Your task to perform on an android device: Open privacy settings Image 0: 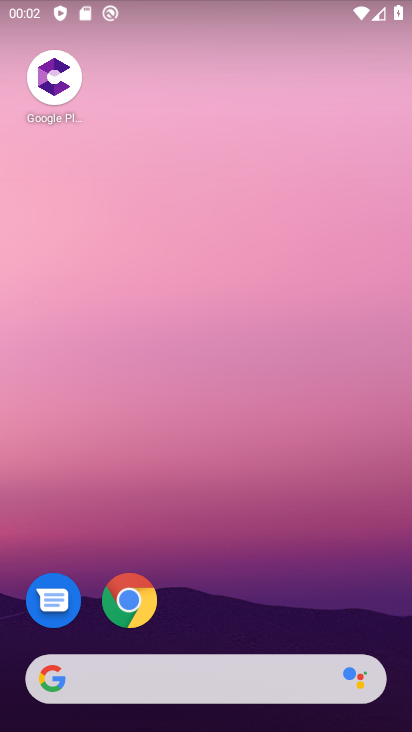
Step 0: drag from (240, 611) to (195, 179)
Your task to perform on an android device: Open privacy settings Image 1: 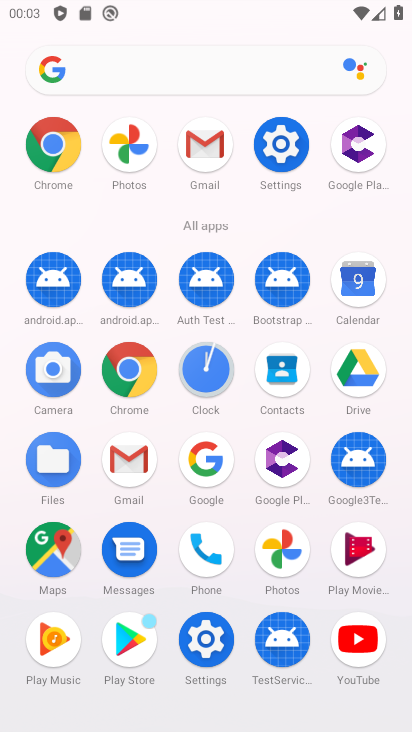
Step 1: click (269, 141)
Your task to perform on an android device: Open privacy settings Image 2: 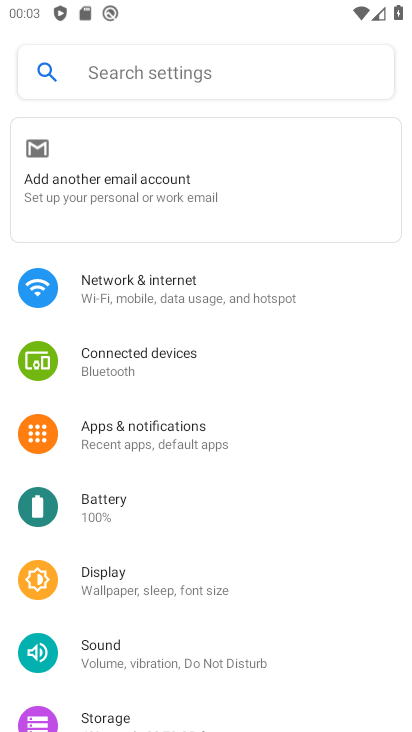
Step 2: drag from (275, 705) to (239, 134)
Your task to perform on an android device: Open privacy settings Image 3: 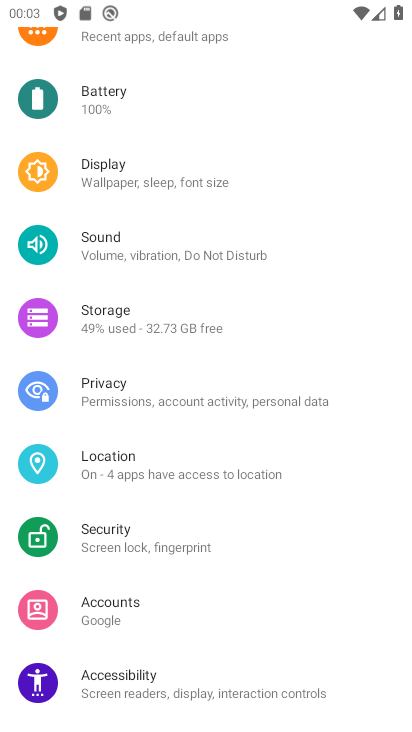
Step 3: click (255, 386)
Your task to perform on an android device: Open privacy settings Image 4: 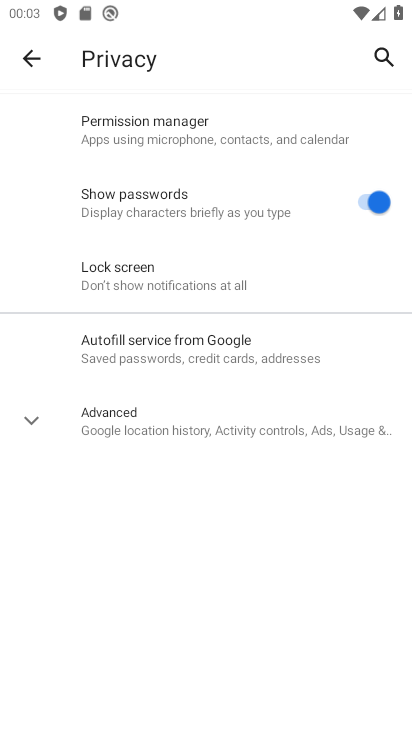
Step 4: task complete